Your task to perform on an android device: Open the stopwatch Image 0: 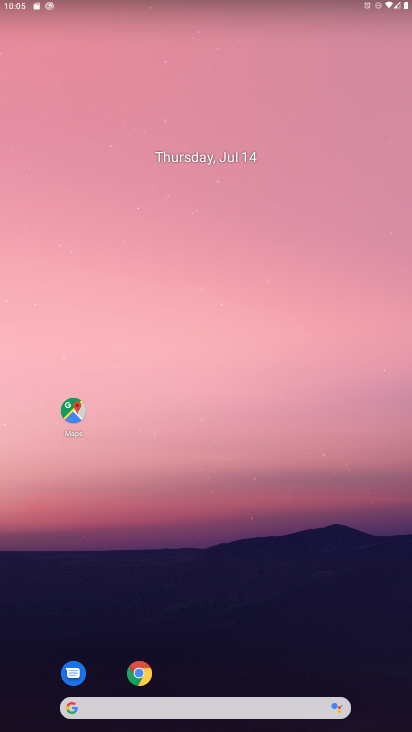
Step 0: drag from (183, 705) to (237, 232)
Your task to perform on an android device: Open the stopwatch Image 1: 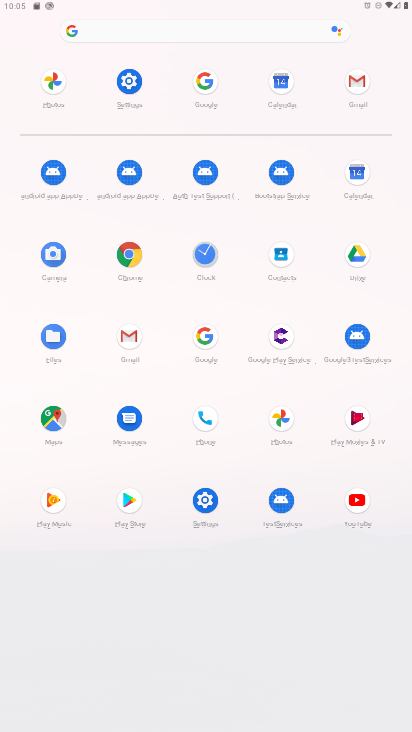
Step 1: click (205, 254)
Your task to perform on an android device: Open the stopwatch Image 2: 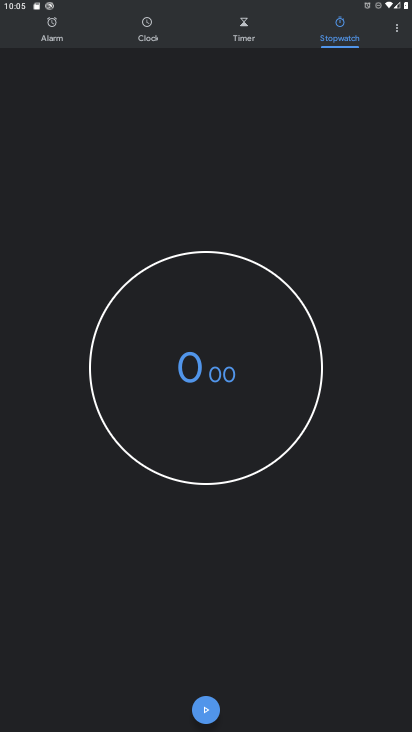
Step 2: task complete